Your task to perform on an android device: choose inbox layout in the gmail app Image 0: 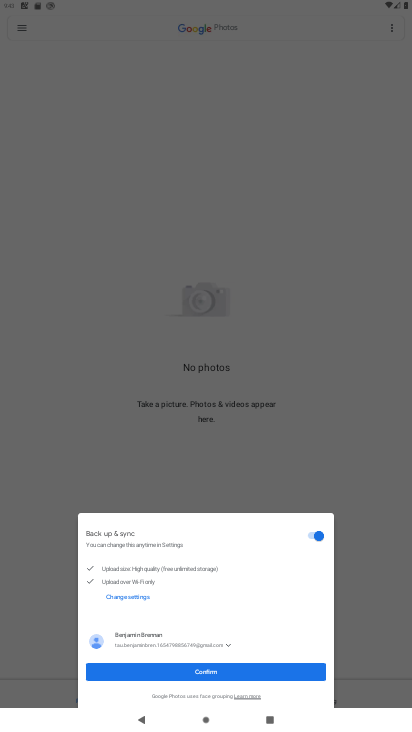
Step 0: press home button
Your task to perform on an android device: choose inbox layout in the gmail app Image 1: 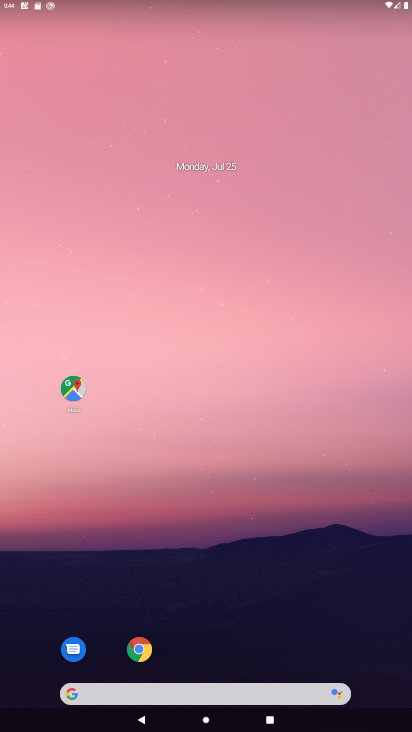
Step 1: drag from (219, 487) to (302, 37)
Your task to perform on an android device: choose inbox layout in the gmail app Image 2: 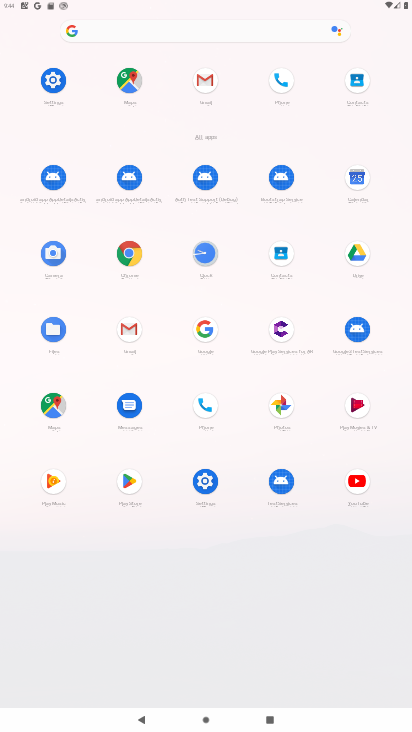
Step 2: click (125, 322)
Your task to perform on an android device: choose inbox layout in the gmail app Image 3: 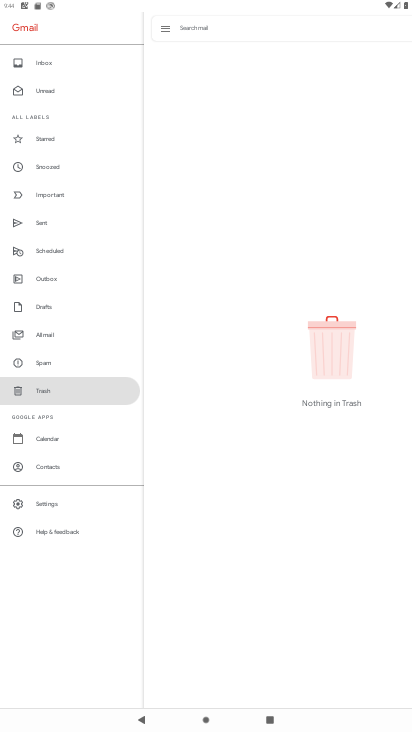
Step 3: click (56, 502)
Your task to perform on an android device: choose inbox layout in the gmail app Image 4: 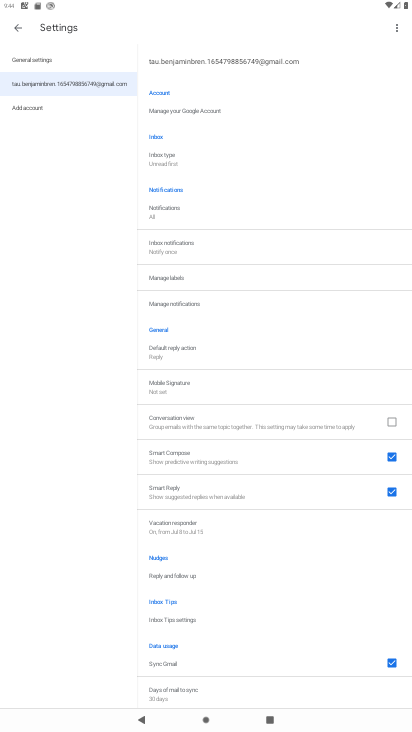
Step 4: click (180, 156)
Your task to perform on an android device: choose inbox layout in the gmail app Image 5: 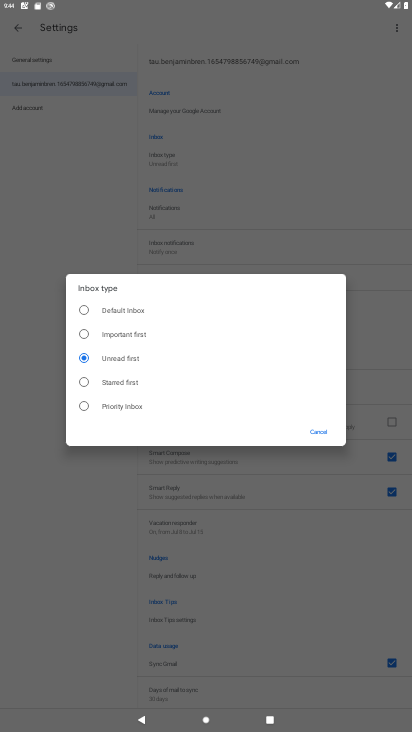
Step 5: click (129, 310)
Your task to perform on an android device: choose inbox layout in the gmail app Image 6: 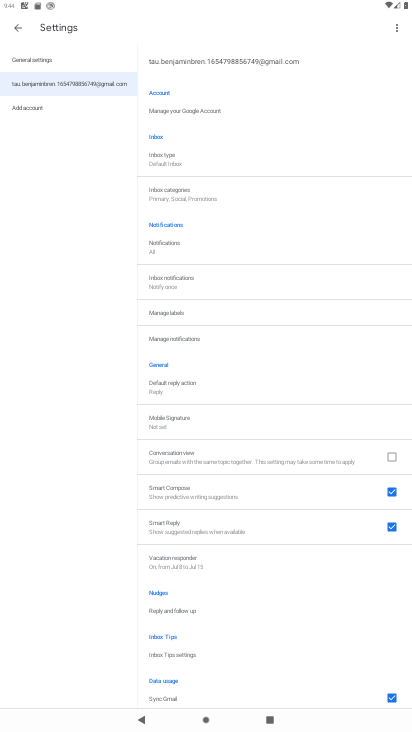
Step 6: task complete